Your task to perform on an android device: Set the phone to "Do not disturb". Image 0: 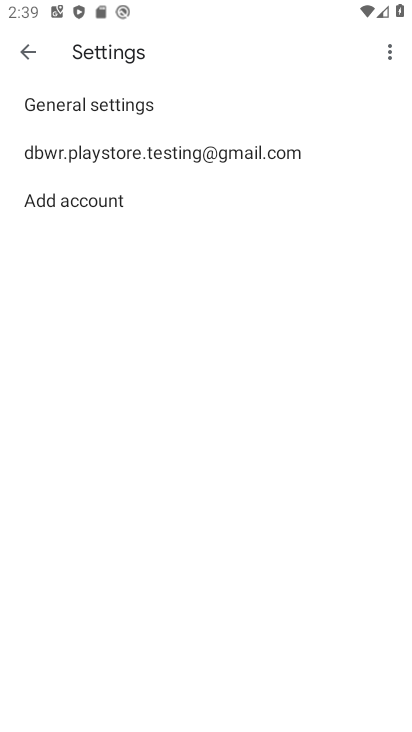
Step 0: press home button
Your task to perform on an android device: Set the phone to "Do not disturb". Image 1: 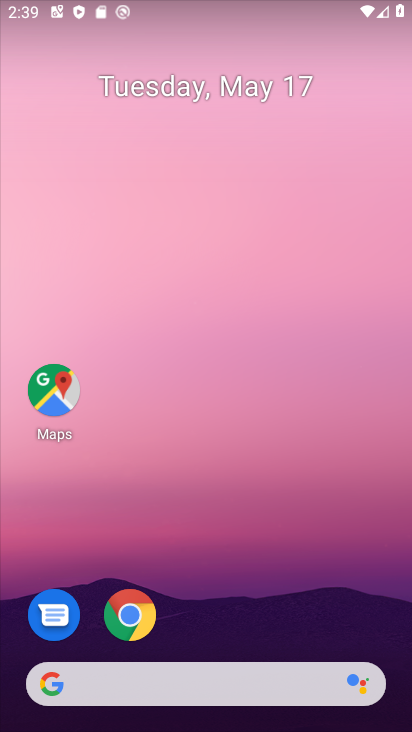
Step 1: drag from (174, 726) to (174, 206)
Your task to perform on an android device: Set the phone to "Do not disturb". Image 2: 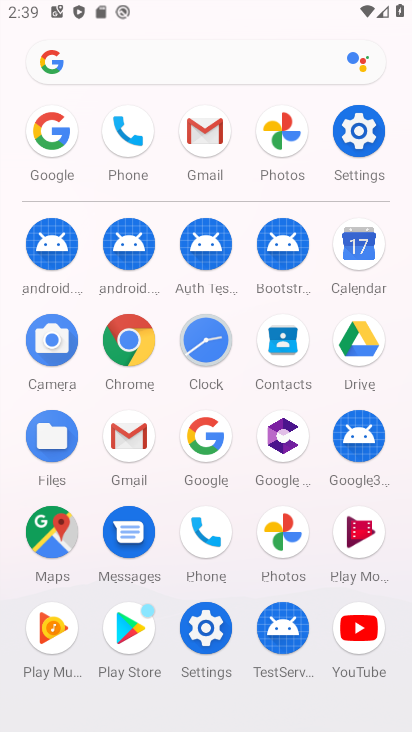
Step 2: click (363, 120)
Your task to perform on an android device: Set the phone to "Do not disturb". Image 3: 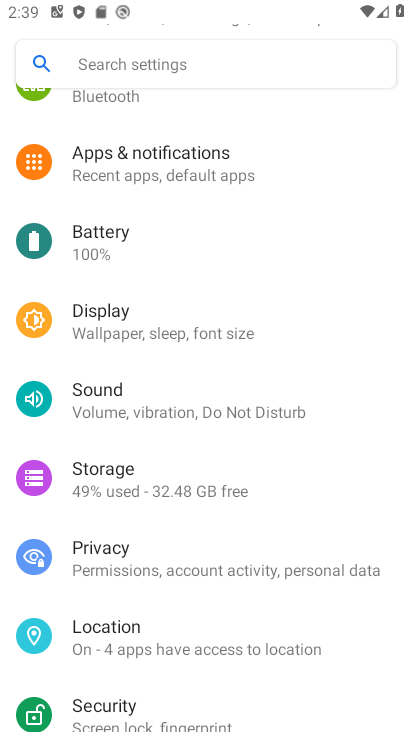
Step 3: click (144, 411)
Your task to perform on an android device: Set the phone to "Do not disturb". Image 4: 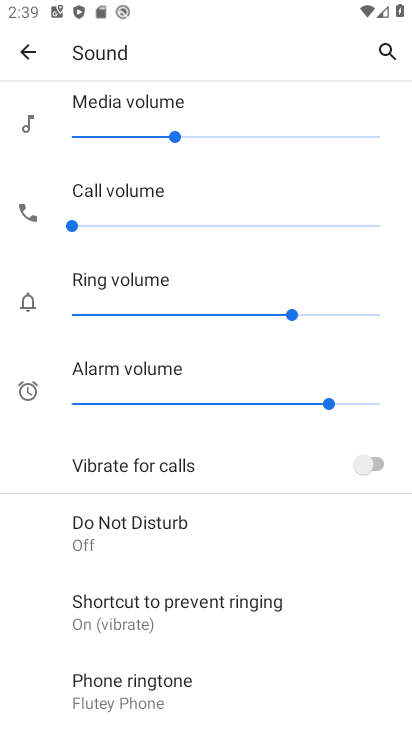
Step 4: click (114, 524)
Your task to perform on an android device: Set the phone to "Do not disturb". Image 5: 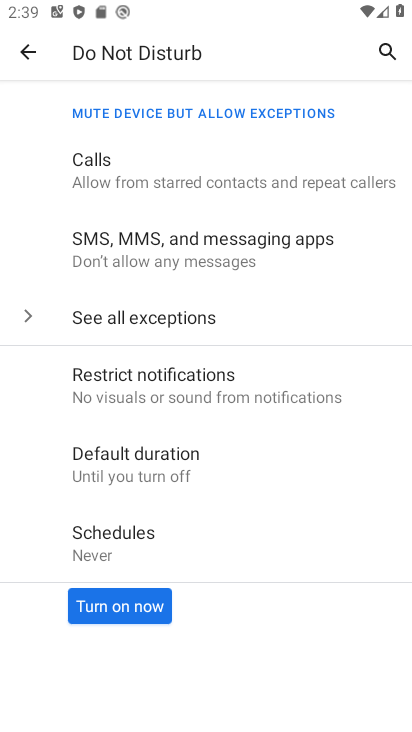
Step 5: click (123, 610)
Your task to perform on an android device: Set the phone to "Do not disturb". Image 6: 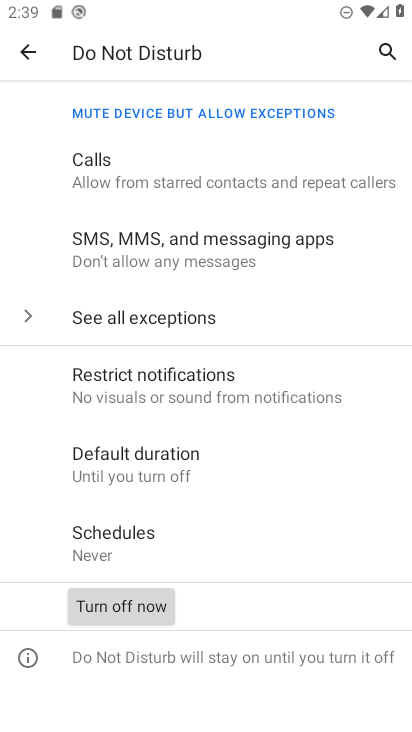
Step 6: task complete